Your task to perform on an android device: Open Wikipedia Image 0: 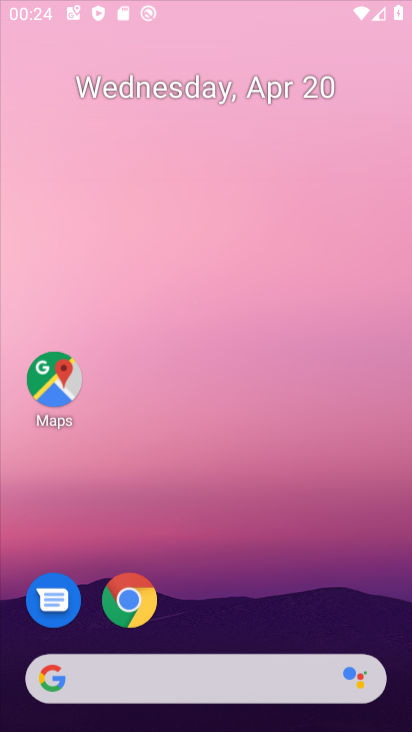
Step 0: click (223, 33)
Your task to perform on an android device: Open Wikipedia Image 1: 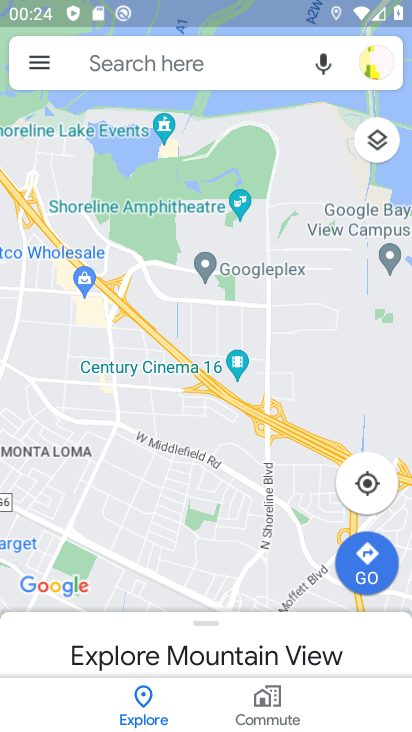
Step 1: press back button
Your task to perform on an android device: Open Wikipedia Image 2: 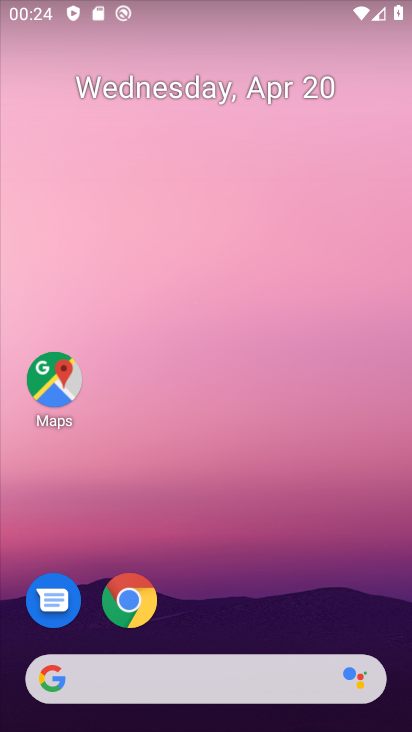
Step 2: drag from (313, 472) to (176, 8)
Your task to perform on an android device: Open Wikipedia Image 3: 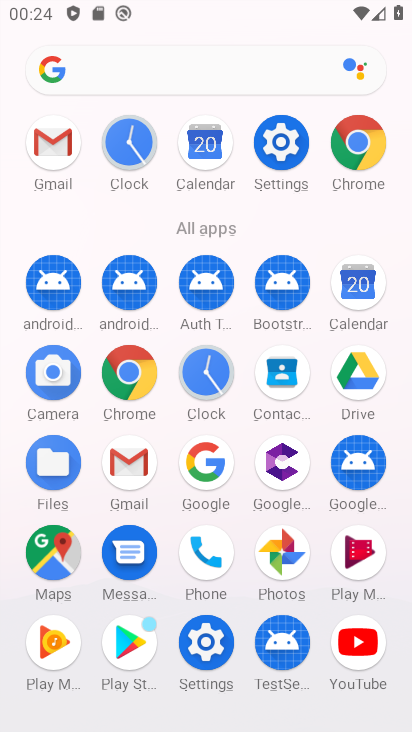
Step 3: drag from (20, 422) to (16, 290)
Your task to perform on an android device: Open Wikipedia Image 4: 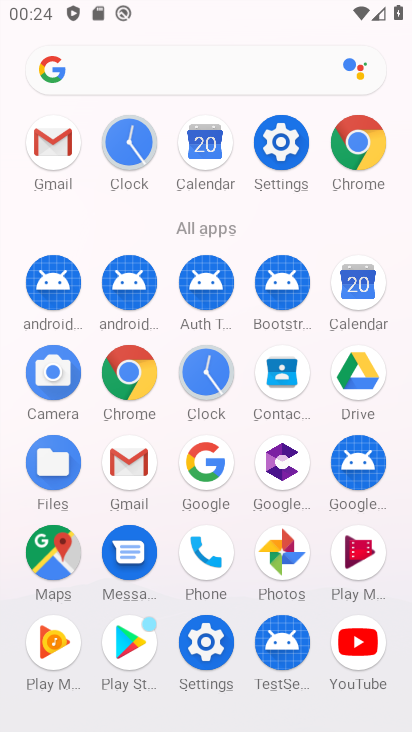
Step 4: click (122, 369)
Your task to perform on an android device: Open Wikipedia Image 5: 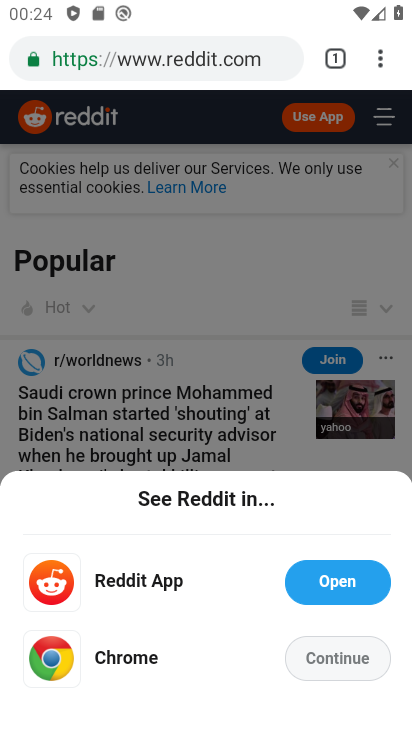
Step 5: click (204, 53)
Your task to perform on an android device: Open Wikipedia Image 6: 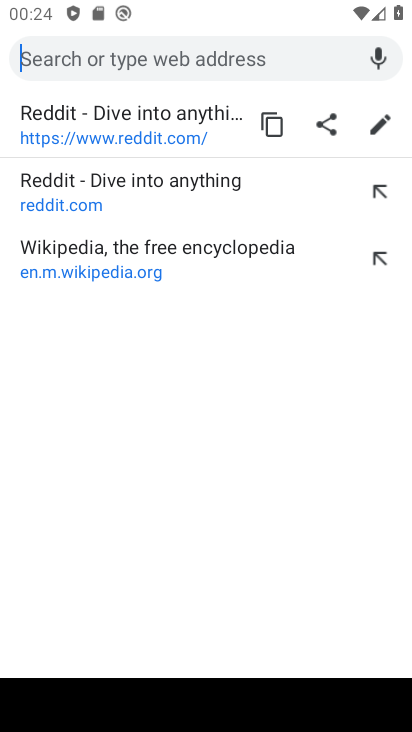
Step 6: click (186, 247)
Your task to perform on an android device: Open Wikipedia Image 7: 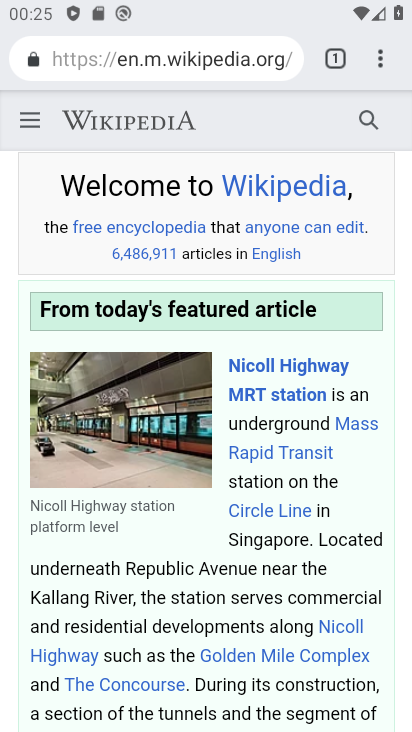
Step 7: task complete